Your task to perform on an android device: open app "Google Pay: Save, Pay, Manage" Image 0: 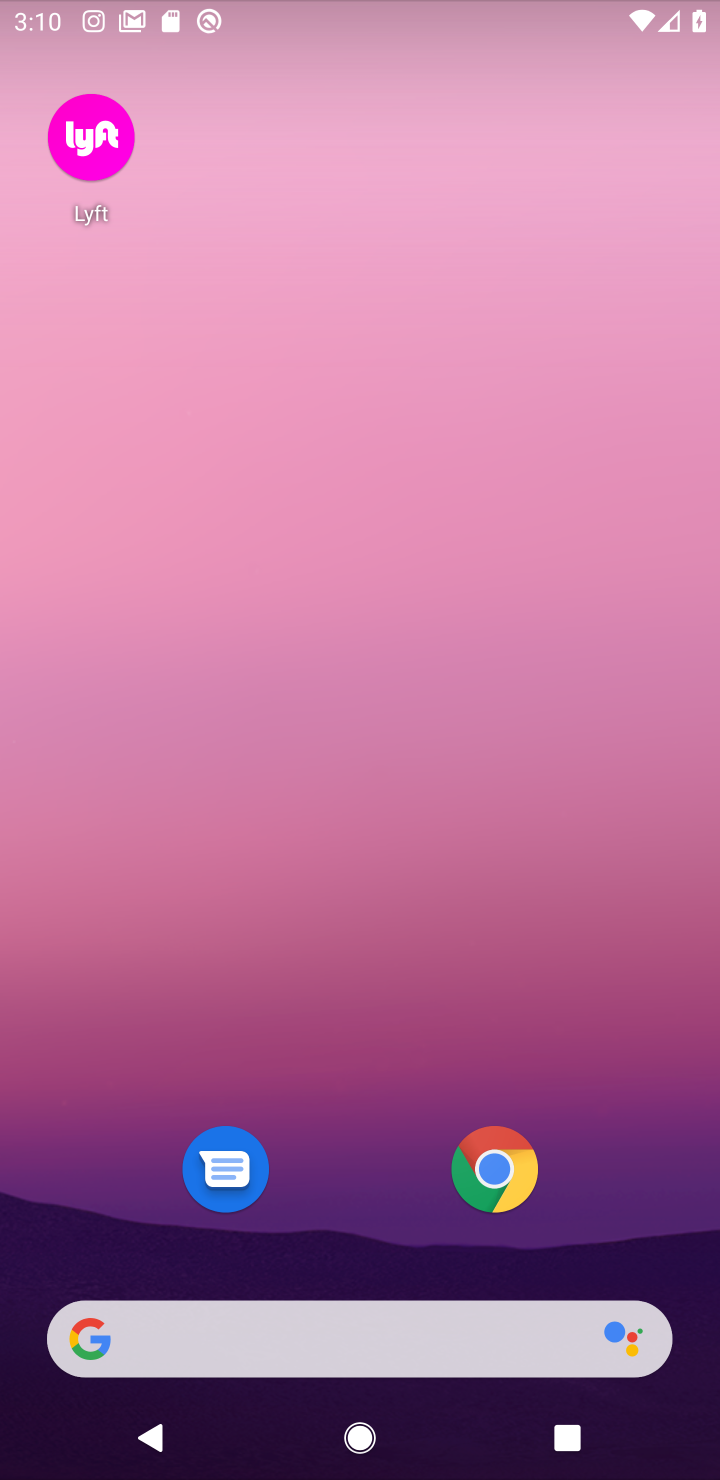
Step 0: press home button
Your task to perform on an android device: open app "Google Pay: Save, Pay, Manage" Image 1: 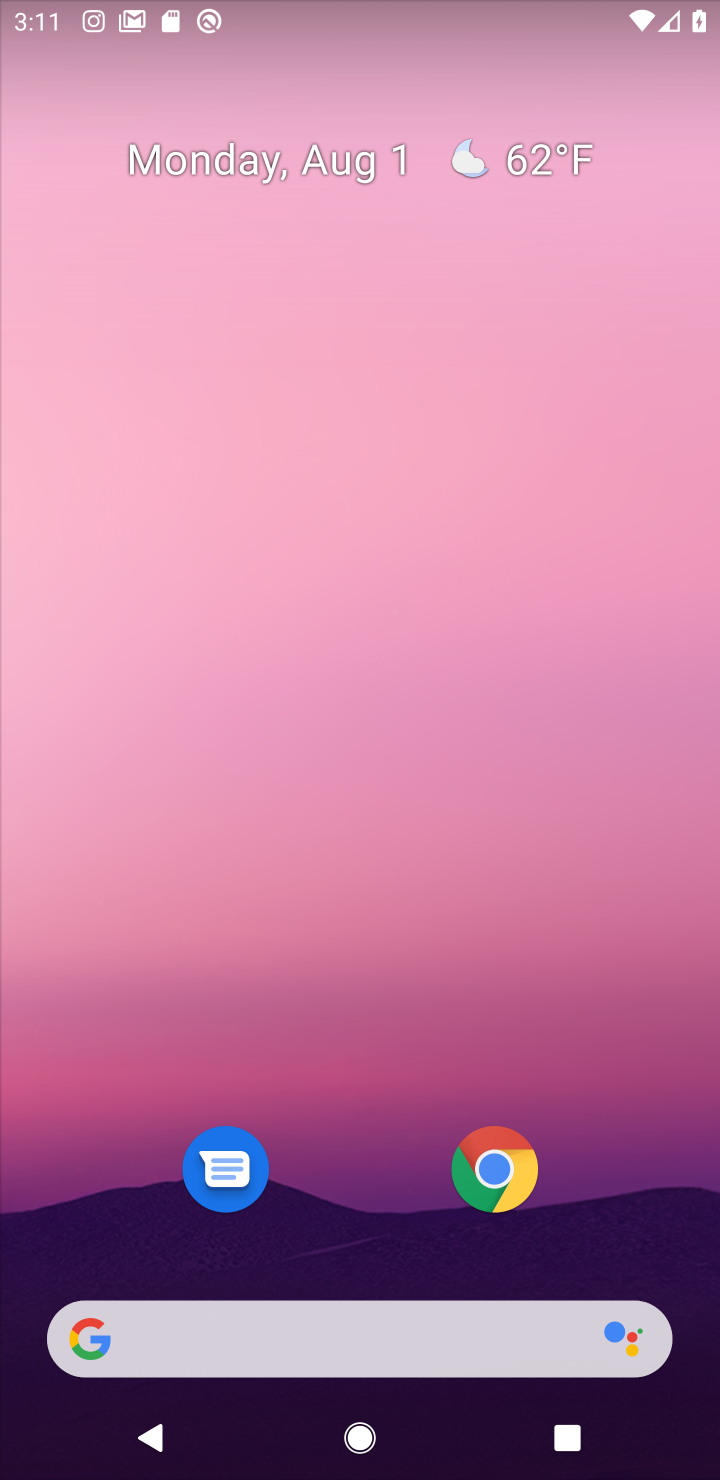
Step 1: drag from (345, 528) to (327, 322)
Your task to perform on an android device: open app "Google Pay: Save, Pay, Manage" Image 2: 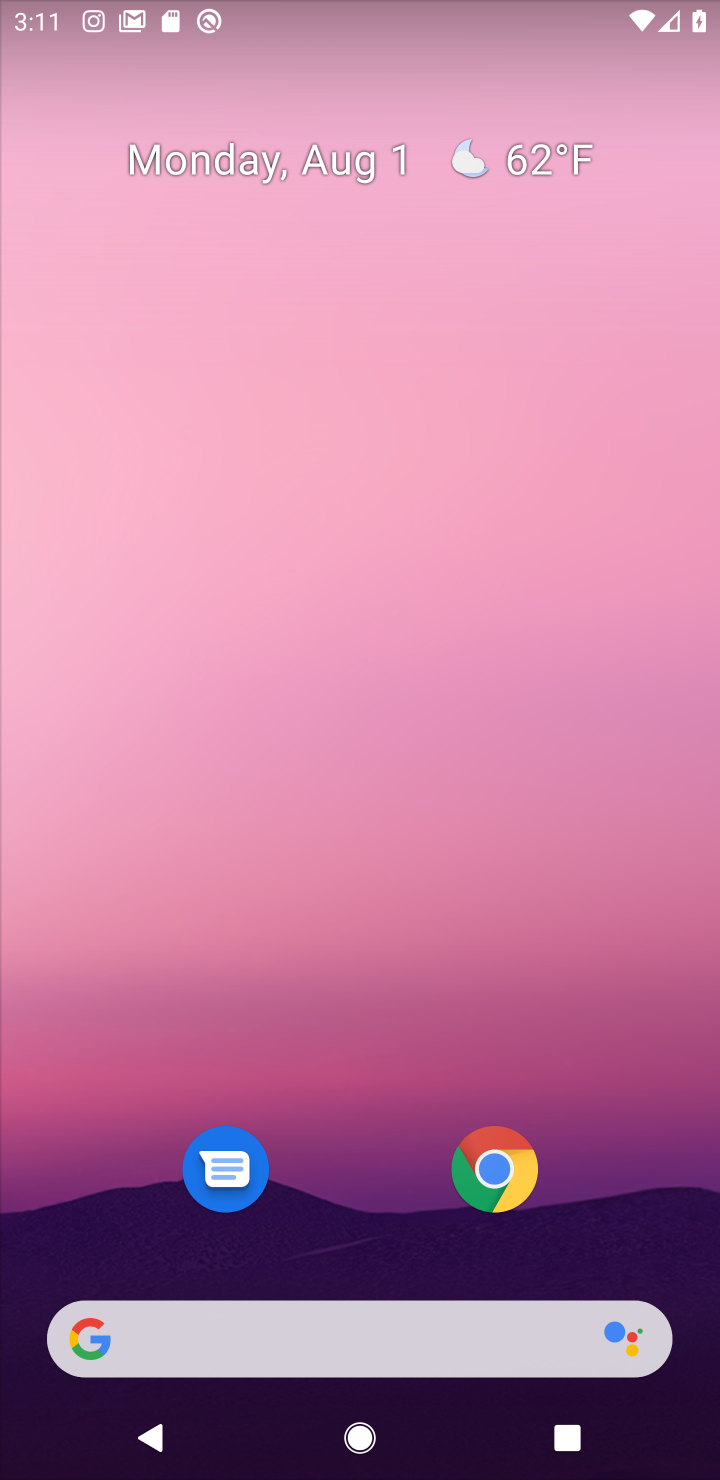
Step 2: drag from (389, 1007) to (389, 201)
Your task to perform on an android device: open app "Google Pay: Save, Pay, Manage" Image 3: 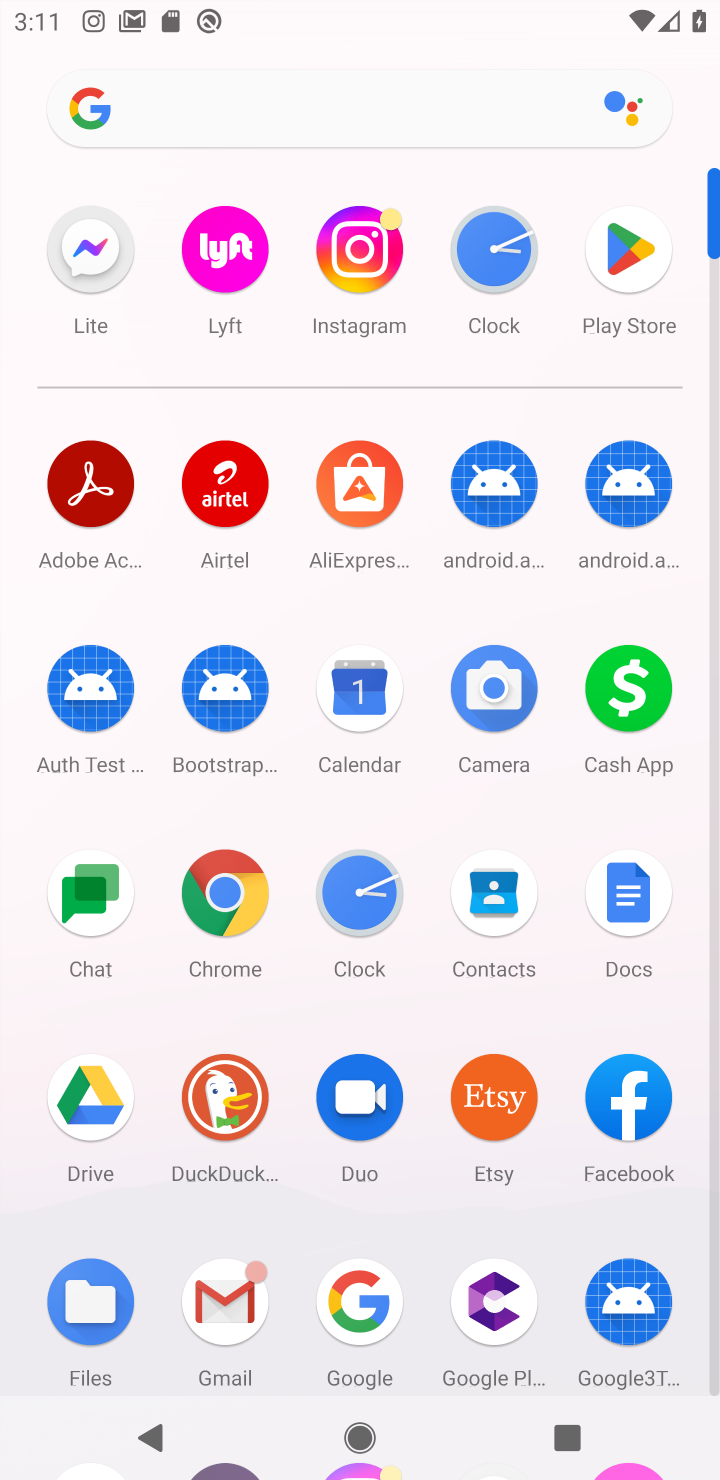
Step 3: click (643, 282)
Your task to perform on an android device: open app "Google Pay: Save, Pay, Manage" Image 4: 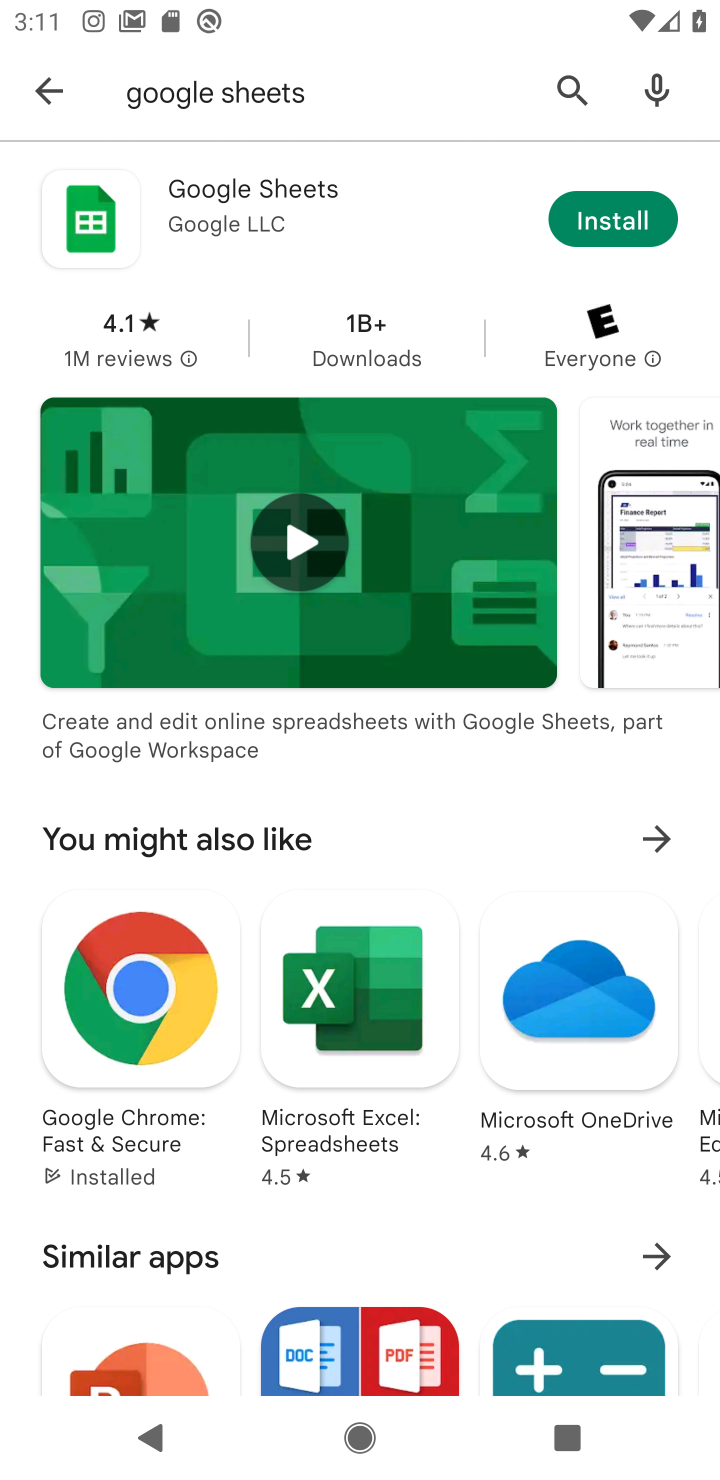
Step 4: click (49, 74)
Your task to perform on an android device: open app "Google Pay: Save, Pay, Manage" Image 5: 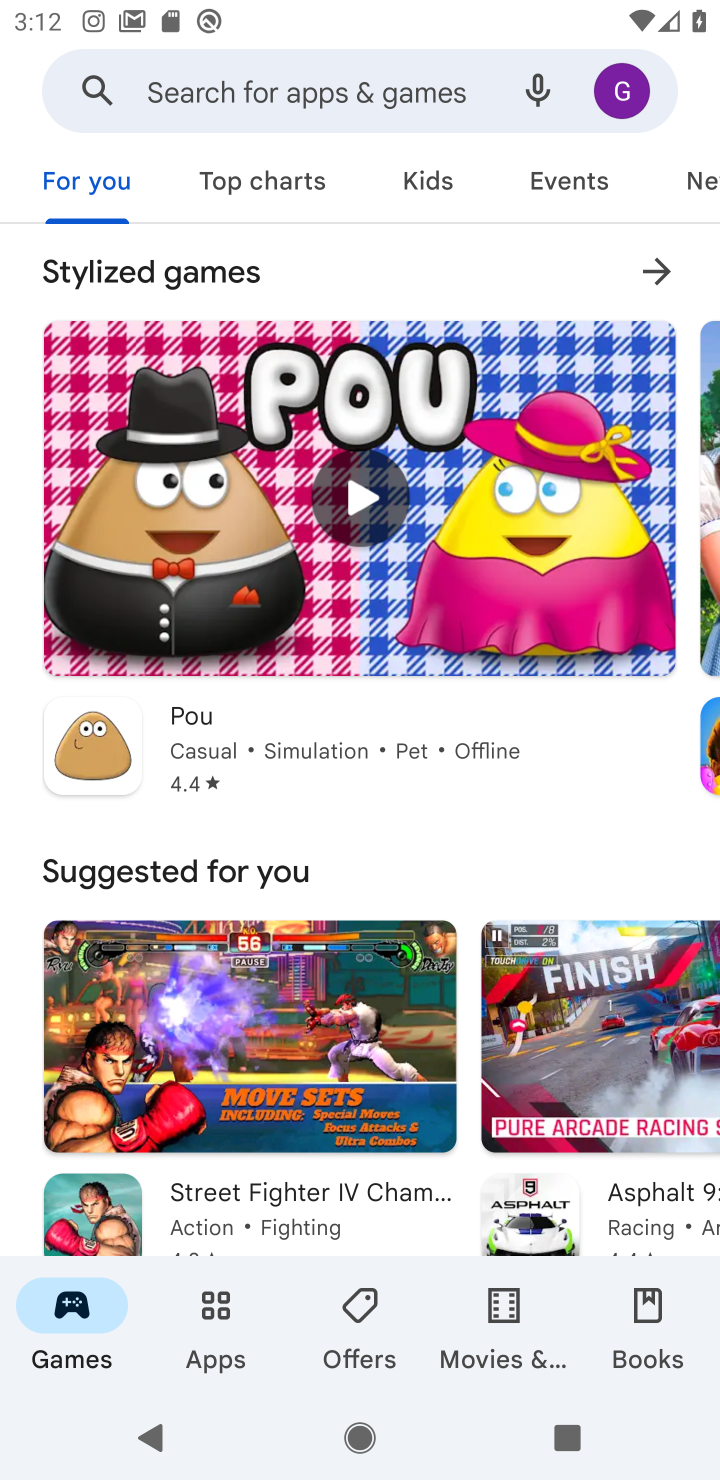
Step 5: click (318, 66)
Your task to perform on an android device: open app "Google Pay: Save, Pay, Manage" Image 6: 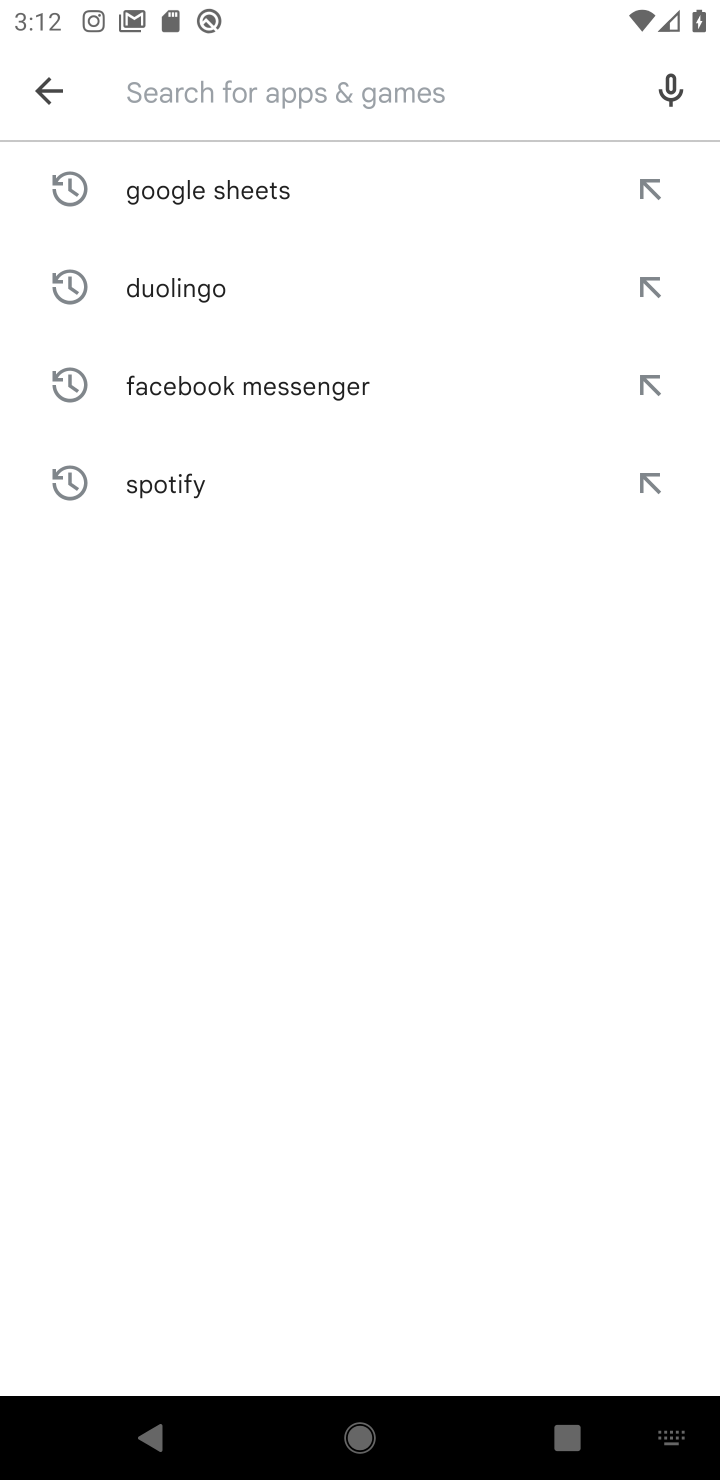
Step 6: type "Google Pay"
Your task to perform on an android device: open app "Google Pay: Save, Pay, Manage" Image 7: 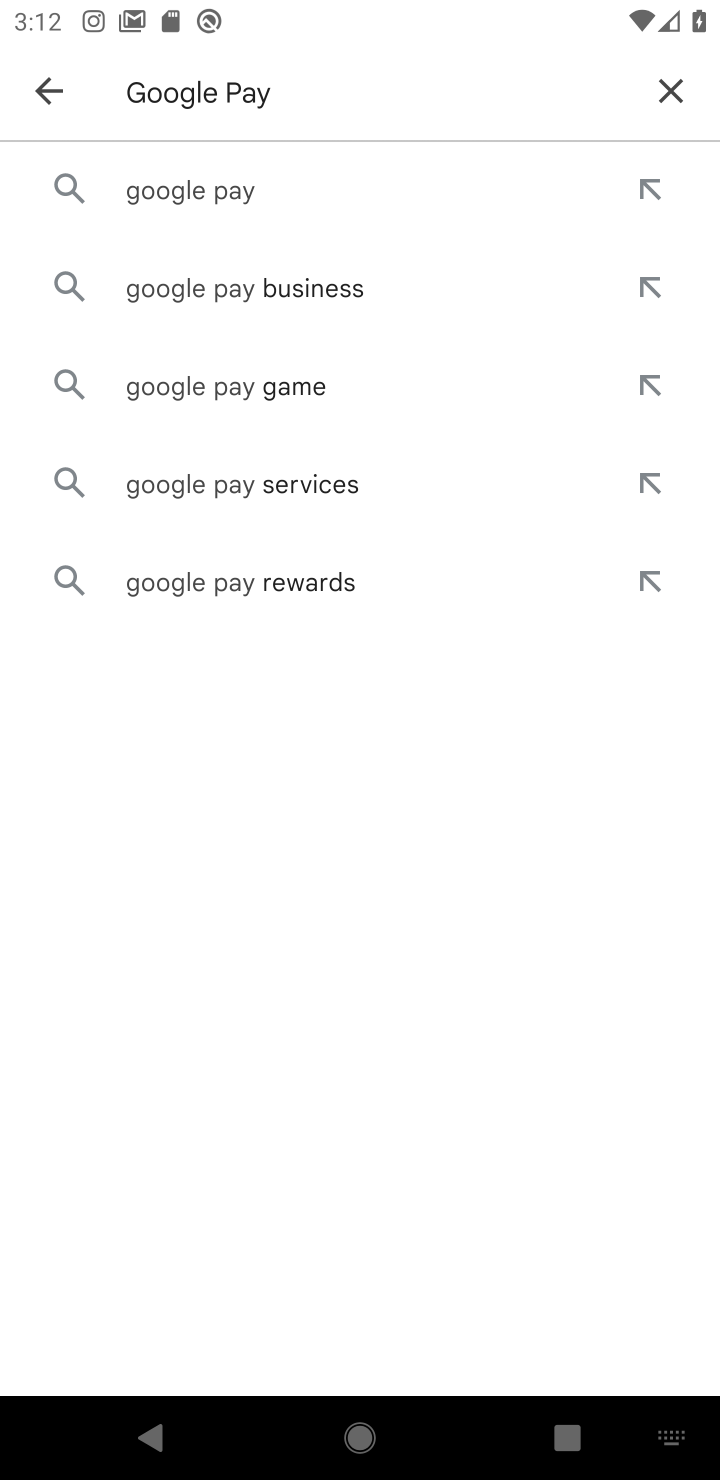
Step 7: click (202, 173)
Your task to perform on an android device: open app "Google Pay: Save, Pay, Manage" Image 8: 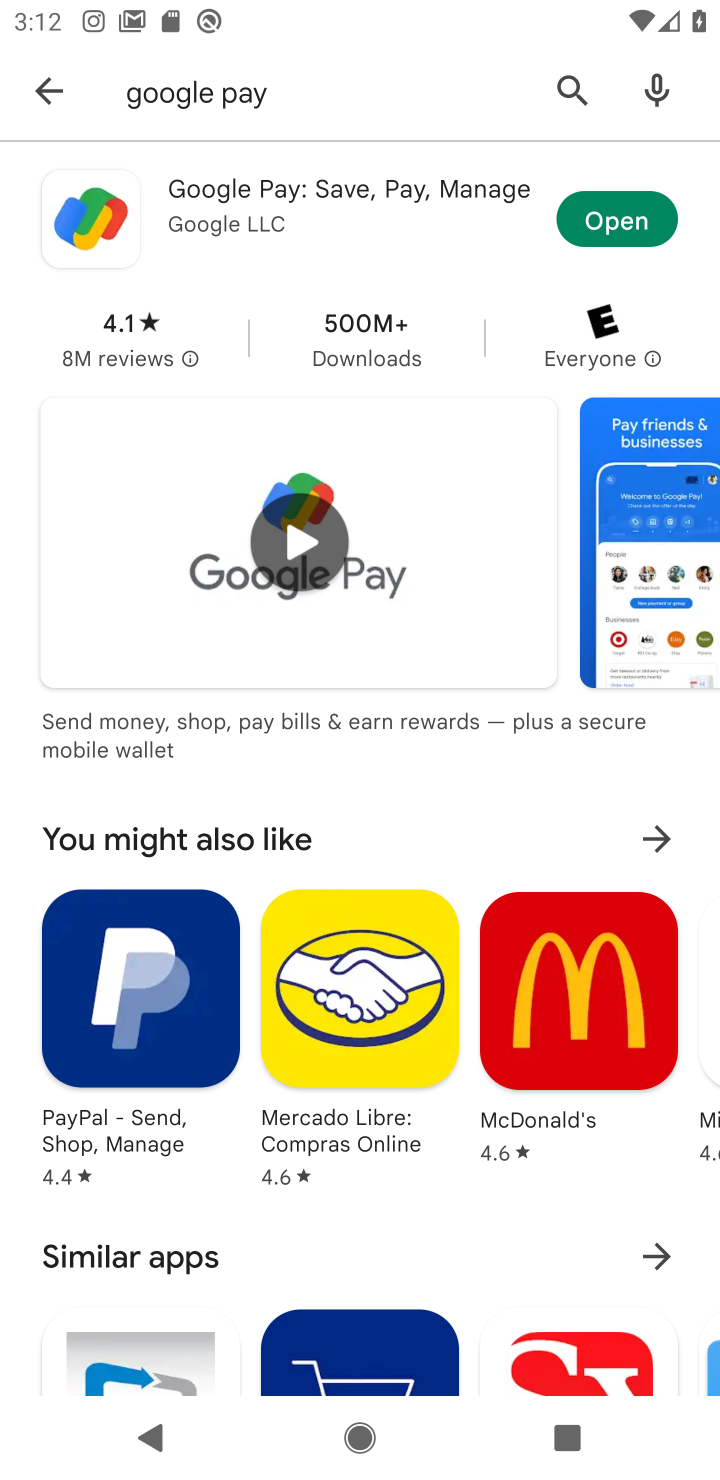
Step 8: click (607, 230)
Your task to perform on an android device: open app "Google Pay: Save, Pay, Manage" Image 9: 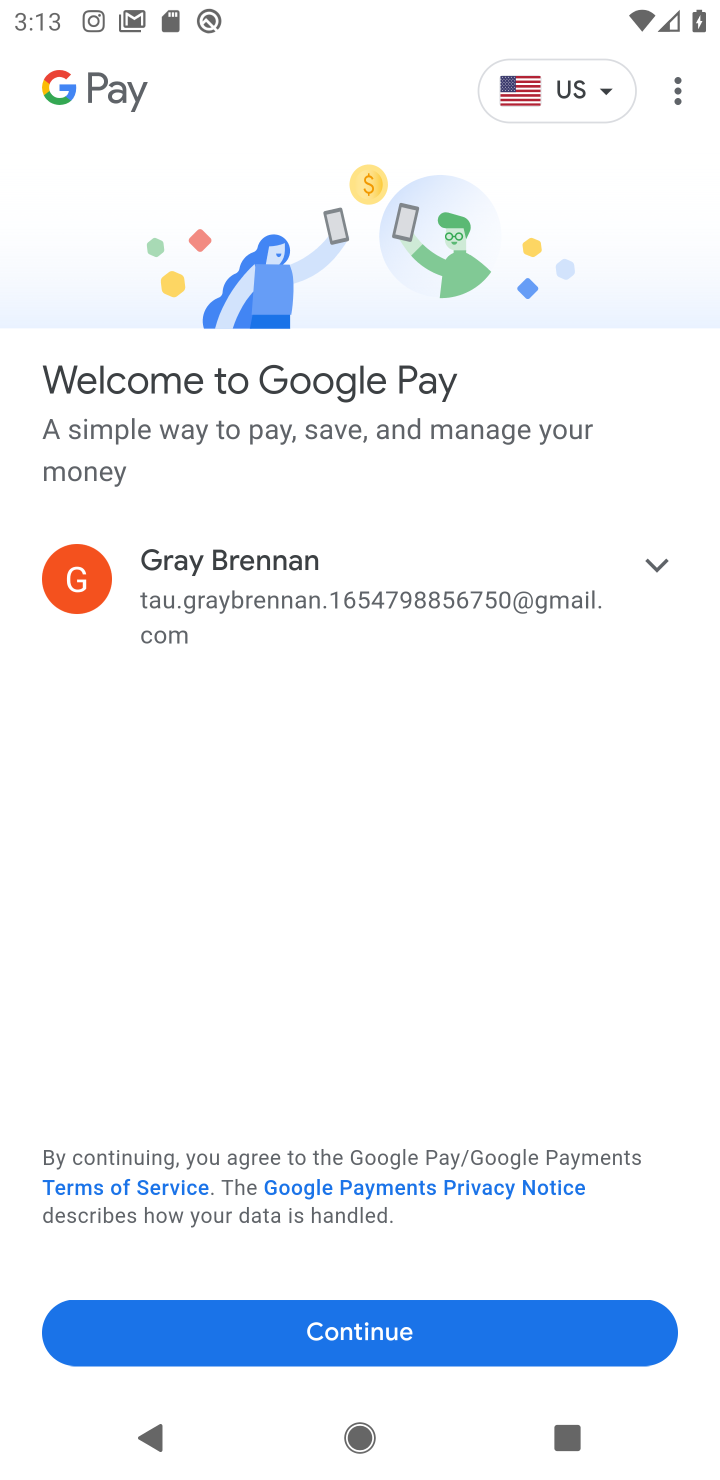
Step 9: task complete